Your task to perform on an android device: snooze an email in the gmail app Image 0: 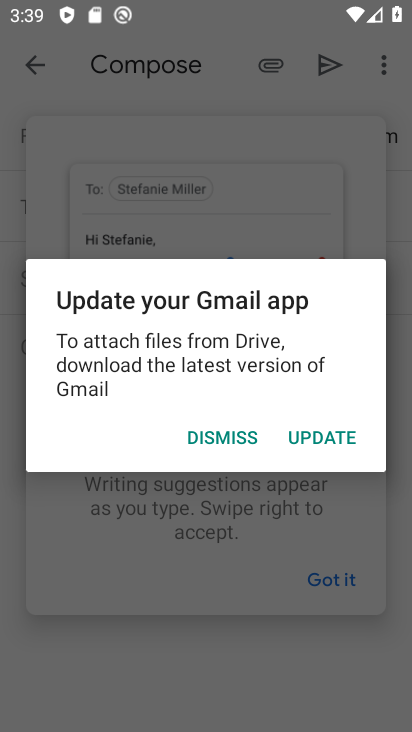
Step 0: press home button
Your task to perform on an android device: snooze an email in the gmail app Image 1: 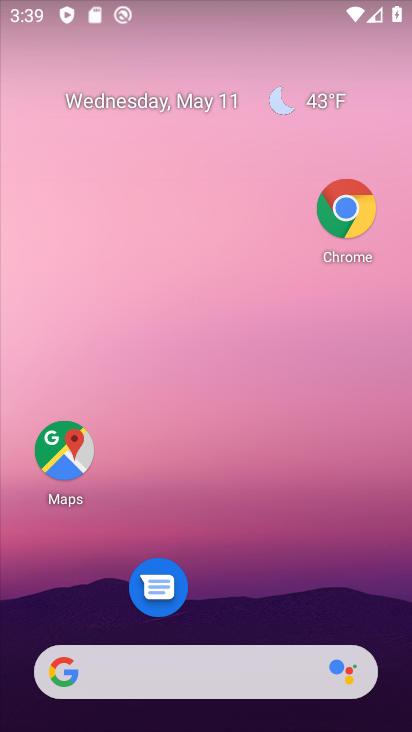
Step 1: task complete